Your task to perform on an android device: turn pop-ups off in chrome Image 0: 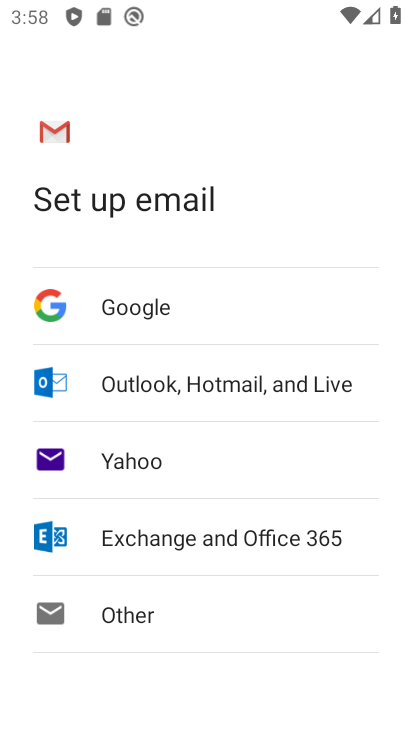
Step 0: press home button
Your task to perform on an android device: turn pop-ups off in chrome Image 1: 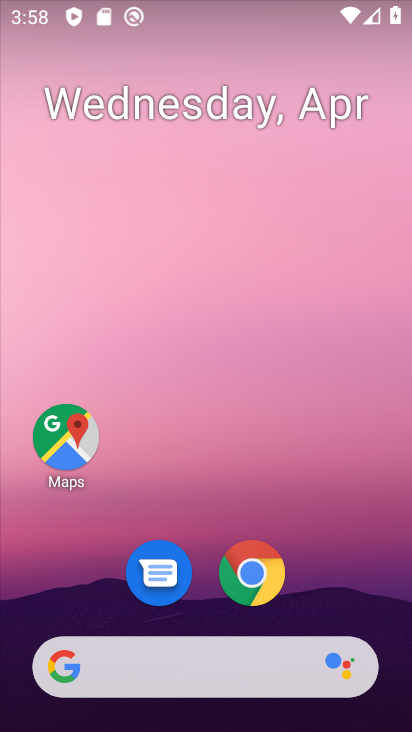
Step 1: click (253, 576)
Your task to perform on an android device: turn pop-ups off in chrome Image 2: 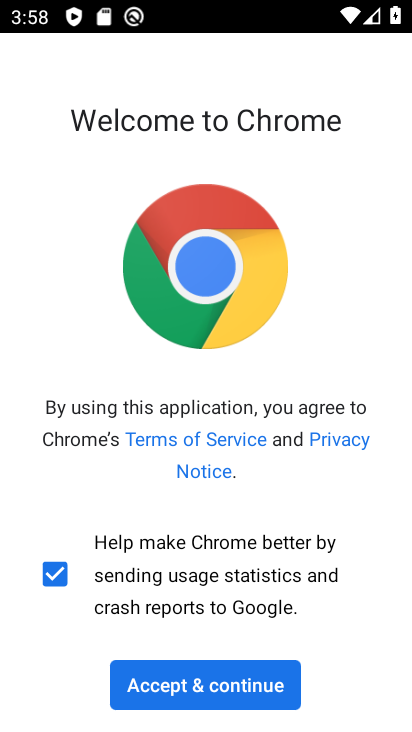
Step 2: click (211, 677)
Your task to perform on an android device: turn pop-ups off in chrome Image 3: 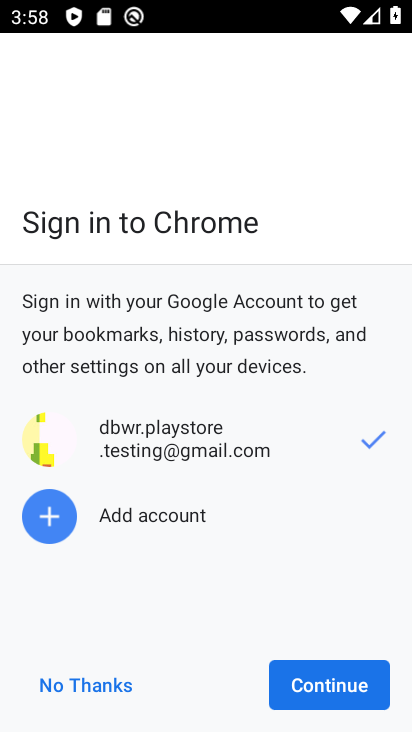
Step 3: click (107, 690)
Your task to perform on an android device: turn pop-ups off in chrome Image 4: 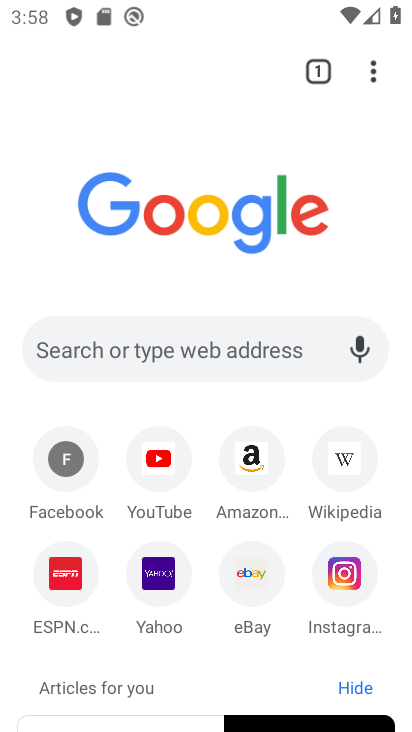
Step 4: click (374, 74)
Your task to perform on an android device: turn pop-ups off in chrome Image 5: 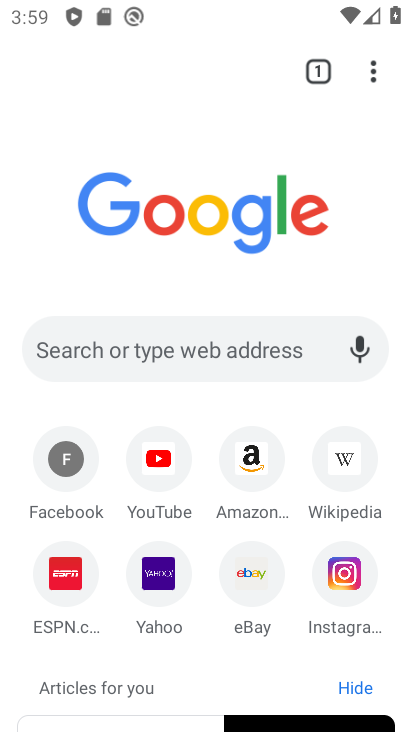
Step 5: click (374, 74)
Your task to perform on an android device: turn pop-ups off in chrome Image 6: 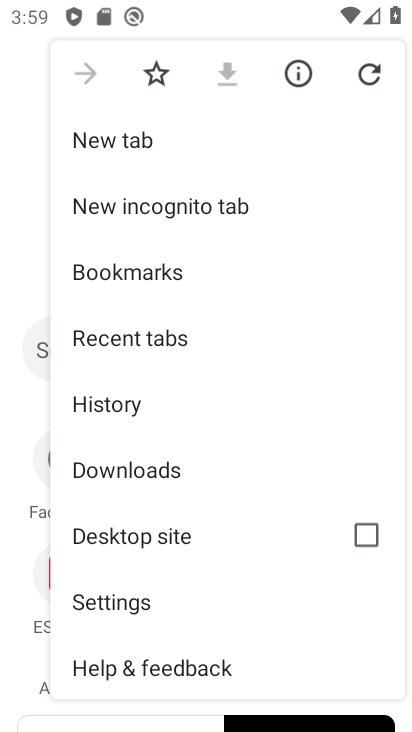
Step 6: click (91, 608)
Your task to perform on an android device: turn pop-ups off in chrome Image 7: 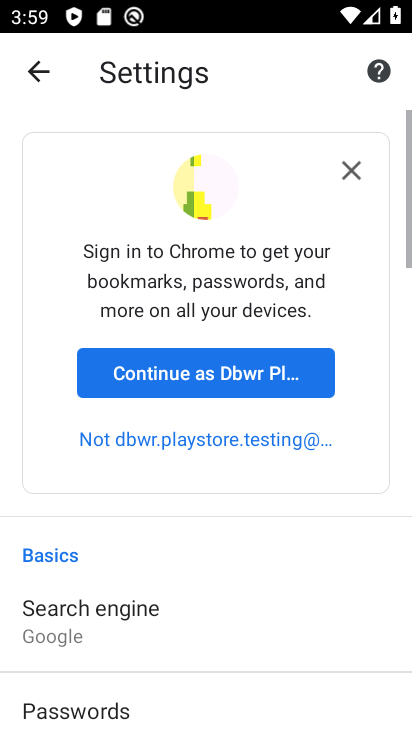
Step 7: drag from (219, 613) to (190, 170)
Your task to perform on an android device: turn pop-ups off in chrome Image 8: 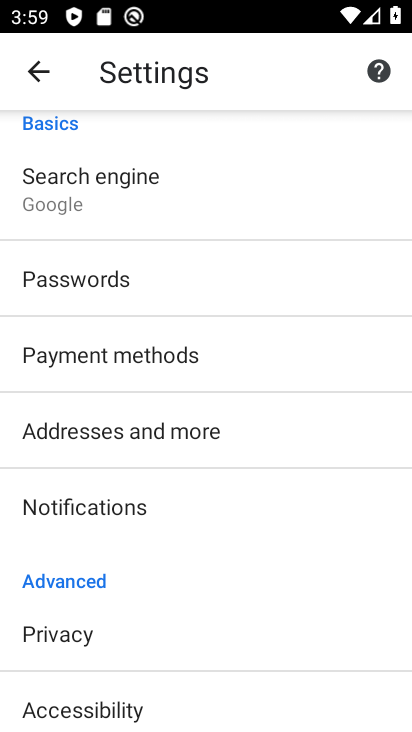
Step 8: drag from (197, 470) to (211, 150)
Your task to perform on an android device: turn pop-ups off in chrome Image 9: 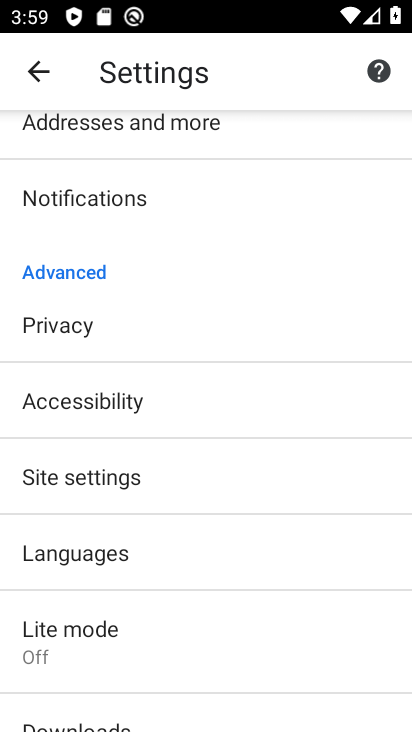
Step 9: click (96, 480)
Your task to perform on an android device: turn pop-ups off in chrome Image 10: 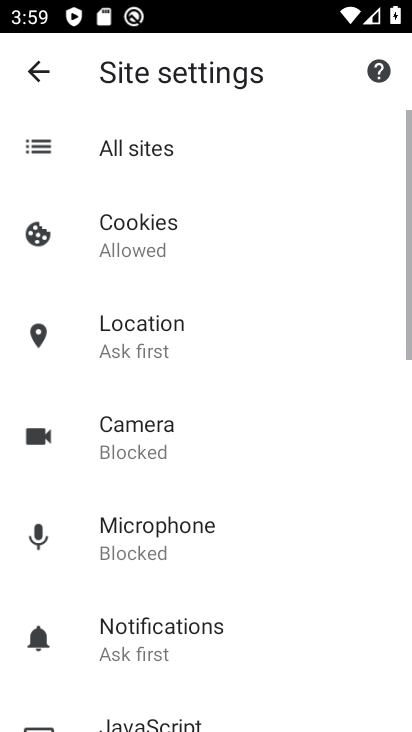
Step 10: drag from (255, 565) to (256, 205)
Your task to perform on an android device: turn pop-ups off in chrome Image 11: 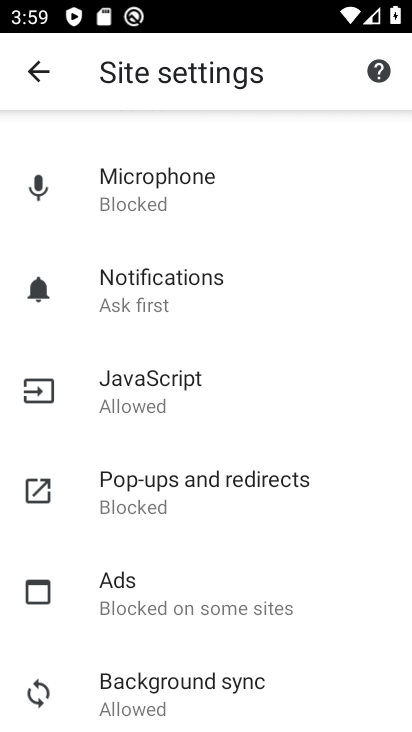
Step 11: click (163, 489)
Your task to perform on an android device: turn pop-ups off in chrome Image 12: 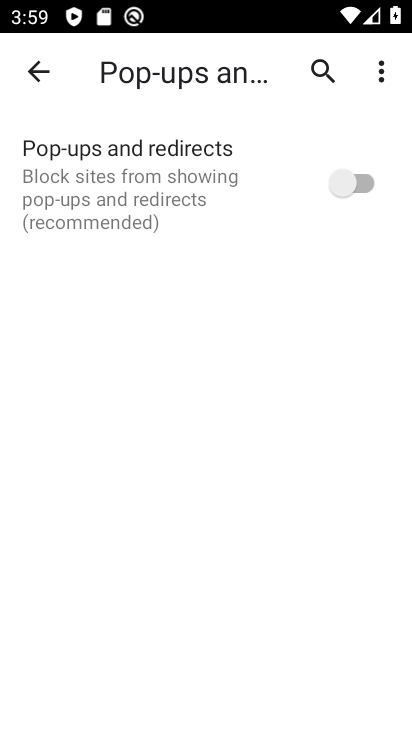
Step 12: task complete